Your task to perform on an android device: set the stopwatch Image 0: 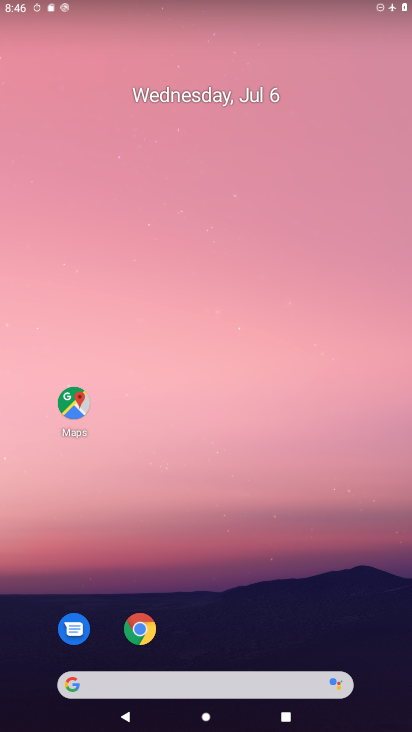
Step 0: drag from (230, 702) to (222, 205)
Your task to perform on an android device: set the stopwatch Image 1: 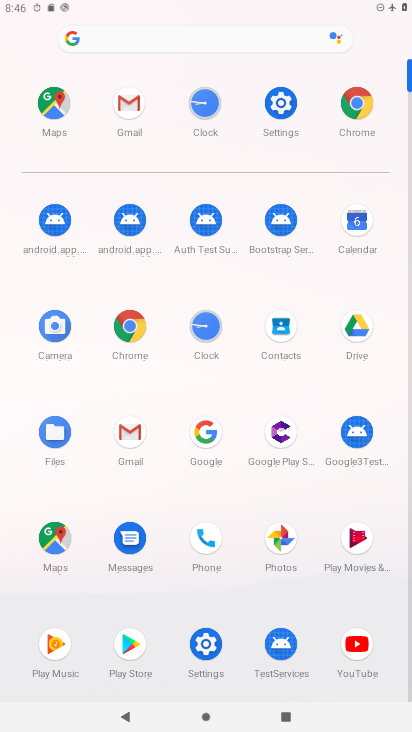
Step 1: click (209, 331)
Your task to perform on an android device: set the stopwatch Image 2: 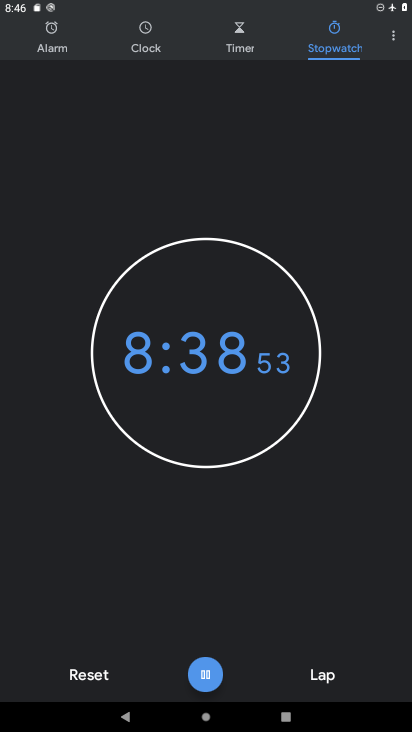
Step 2: click (209, 344)
Your task to perform on an android device: set the stopwatch Image 3: 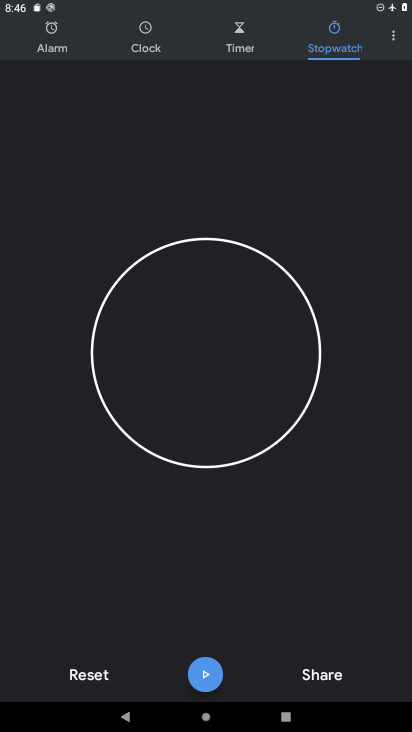
Step 3: click (97, 680)
Your task to perform on an android device: set the stopwatch Image 4: 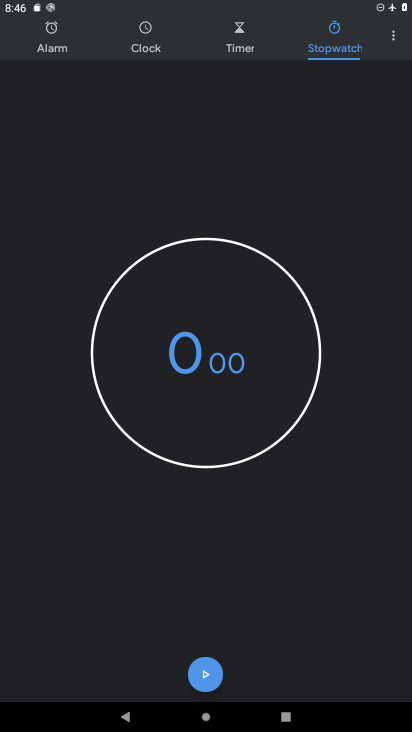
Step 4: click (218, 362)
Your task to perform on an android device: set the stopwatch Image 5: 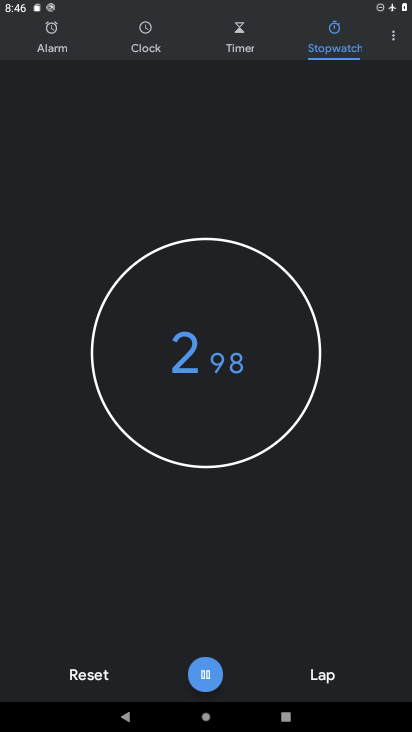
Step 5: type "5456"
Your task to perform on an android device: set the stopwatch Image 6: 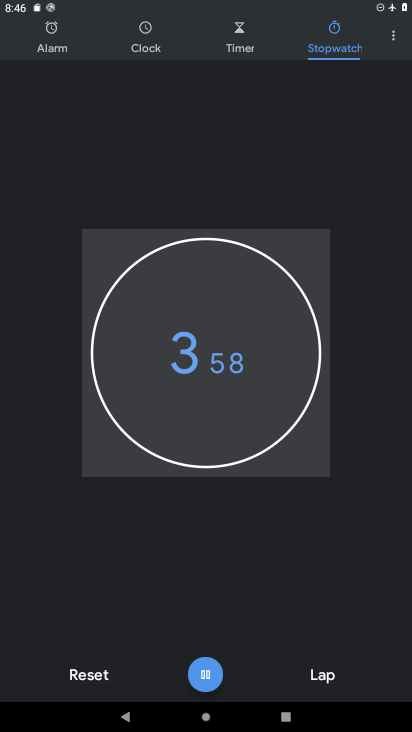
Step 6: type ""
Your task to perform on an android device: set the stopwatch Image 7: 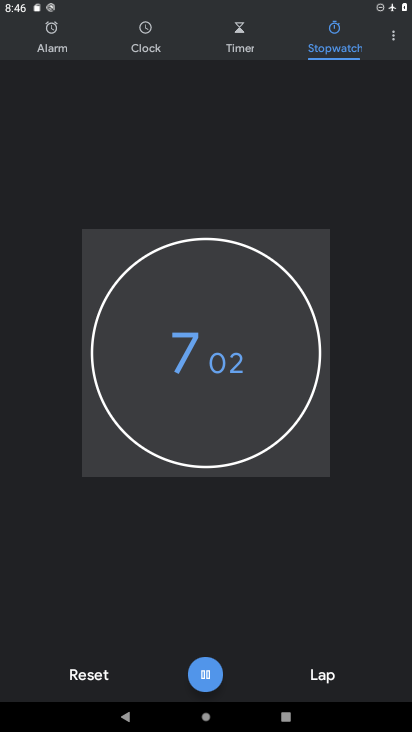
Step 7: task complete